Your task to perform on an android device: add a contact Image 0: 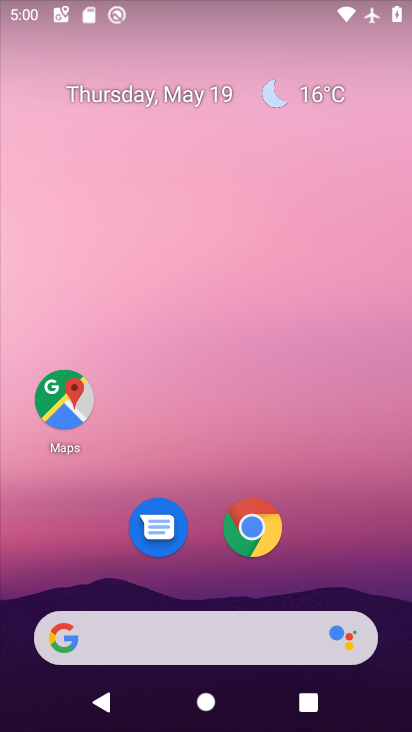
Step 0: drag from (319, 438) to (151, 5)
Your task to perform on an android device: add a contact Image 1: 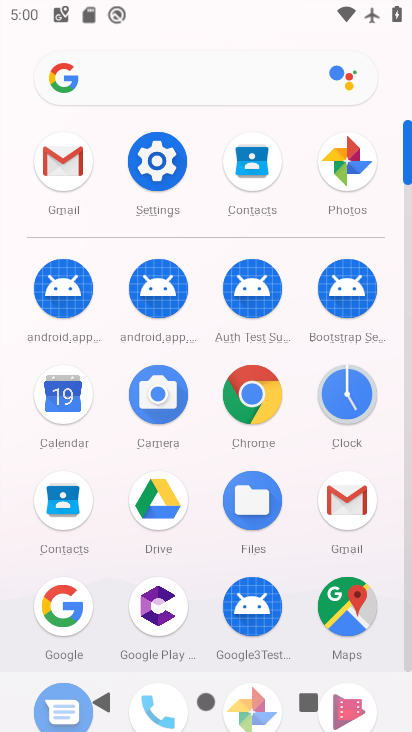
Step 1: click (63, 501)
Your task to perform on an android device: add a contact Image 2: 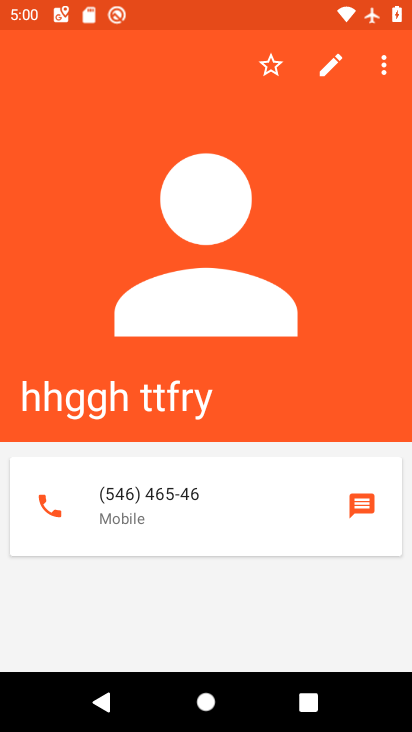
Step 2: press back button
Your task to perform on an android device: add a contact Image 3: 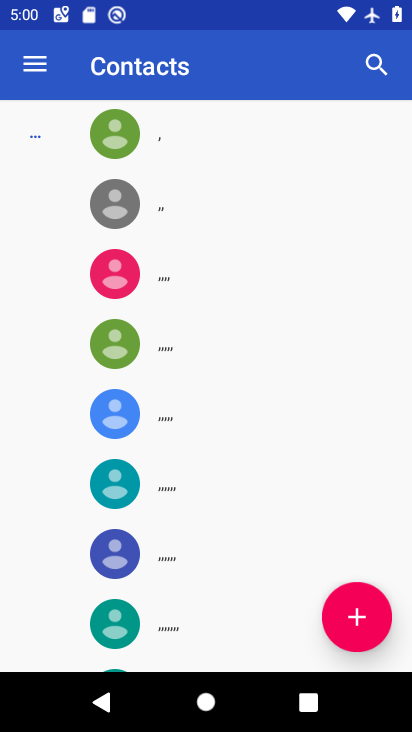
Step 3: click (357, 614)
Your task to perform on an android device: add a contact Image 4: 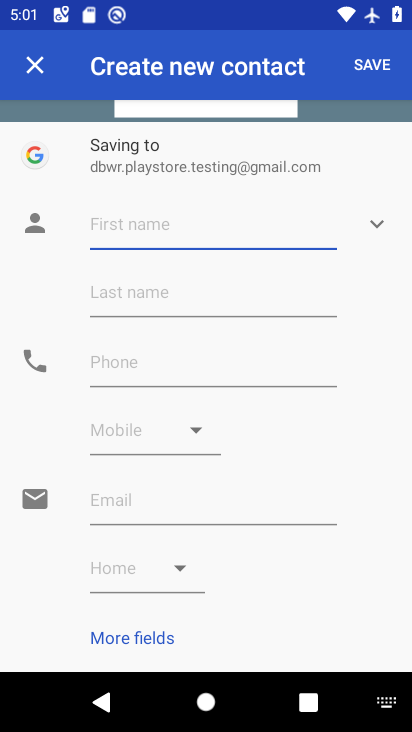
Step 4: type "hgdfh"
Your task to perform on an android device: add a contact Image 5: 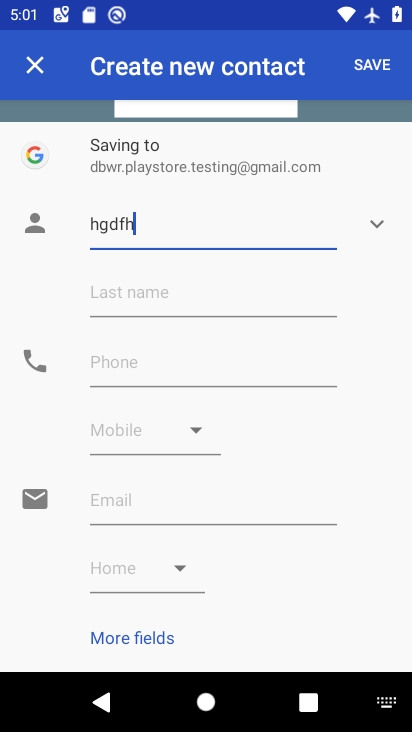
Step 5: type ""
Your task to perform on an android device: add a contact Image 6: 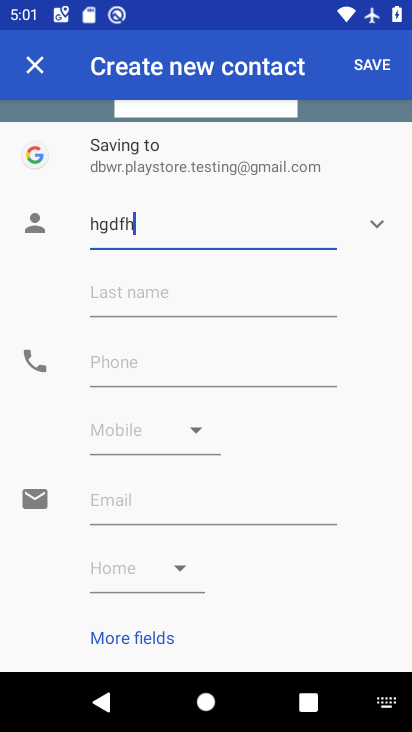
Step 6: click (187, 301)
Your task to perform on an android device: add a contact Image 7: 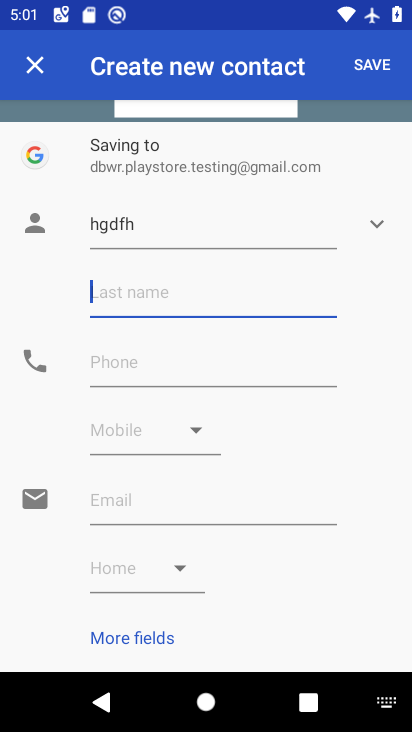
Step 7: type "hgfhgf"
Your task to perform on an android device: add a contact Image 8: 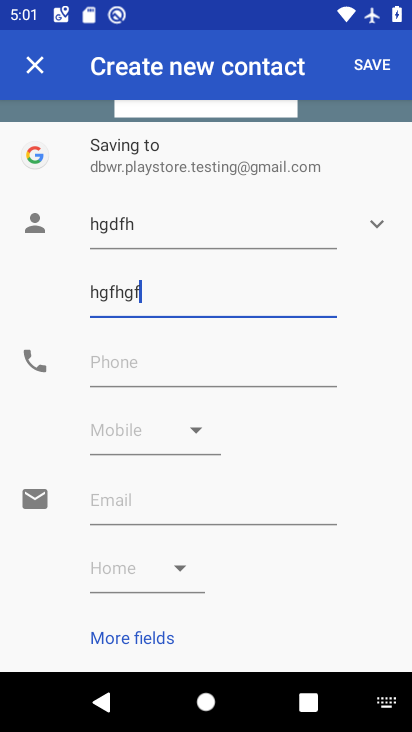
Step 8: type ""
Your task to perform on an android device: add a contact Image 9: 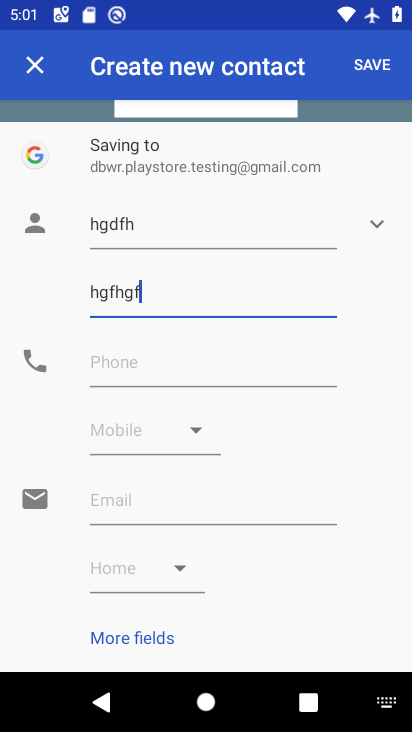
Step 9: click (238, 363)
Your task to perform on an android device: add a contact Image 10: 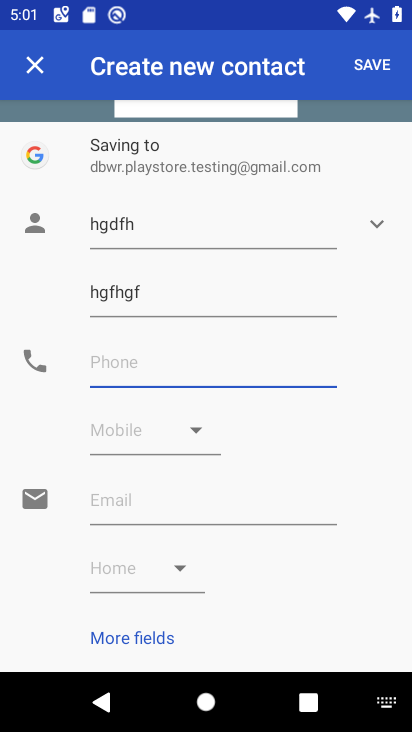
Step 10: type "576576575"
Your task to perform on an android device: add a contact Image 11: 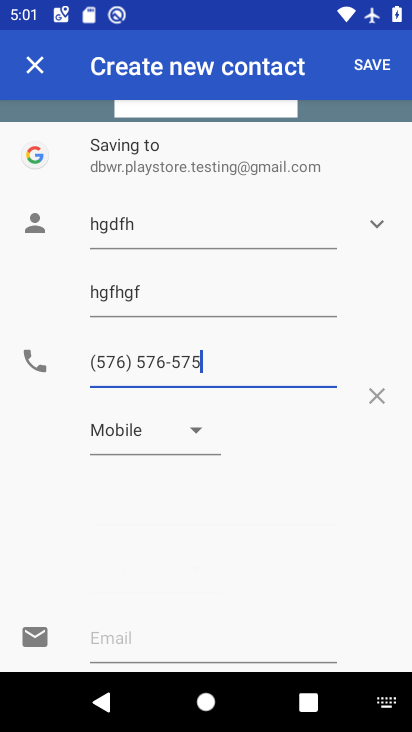
Step 11: type ""
Your task to perform on an android device: add a contact Image 12: 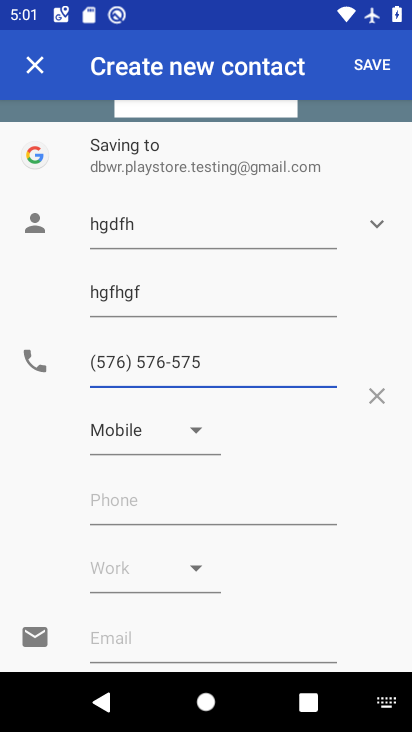
Step 12: click (384, 62)
Your task to perform on an android device: add a contact Image 13: 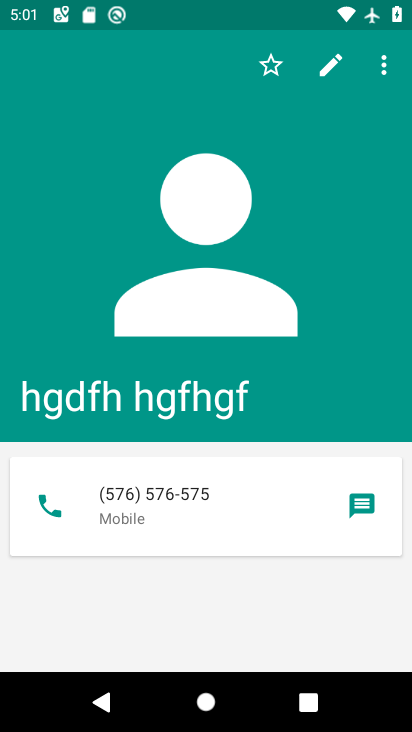
Step 13: task complete